Your task to perform on an android device: Open Google Maps and go to "Timeline" Image 0: 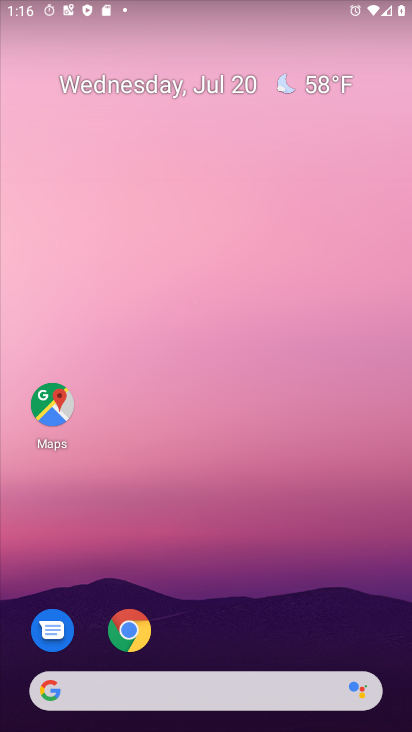
Step 0: click (44, 405)
Your task to perform on an android device: Open Google Maps and go to "Timeline" Image 1: 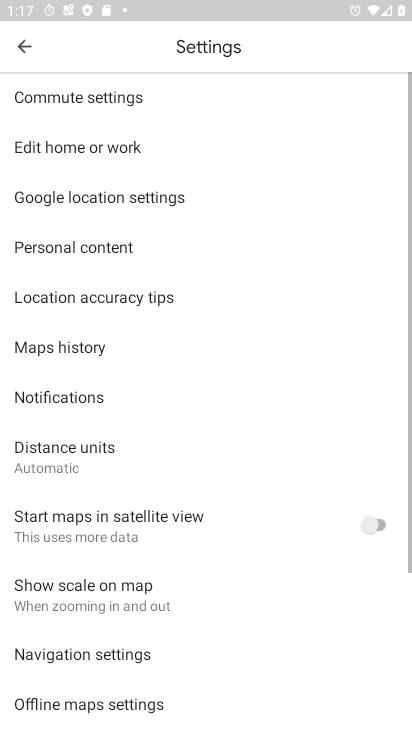
Step 1: click (25, 50)
Your task to perform on an android device: Open Google Maps and go to "Timeline" Image 2: 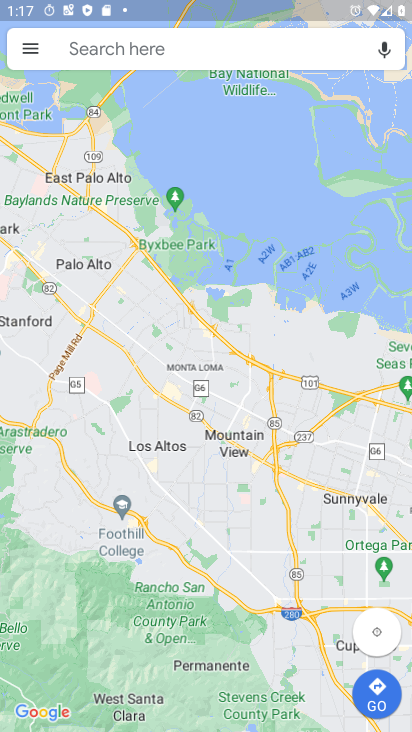
Step 2: click (25, 52)
Your task to perform on an android device: Open Google Maps and go to "Timeline" Image 3: 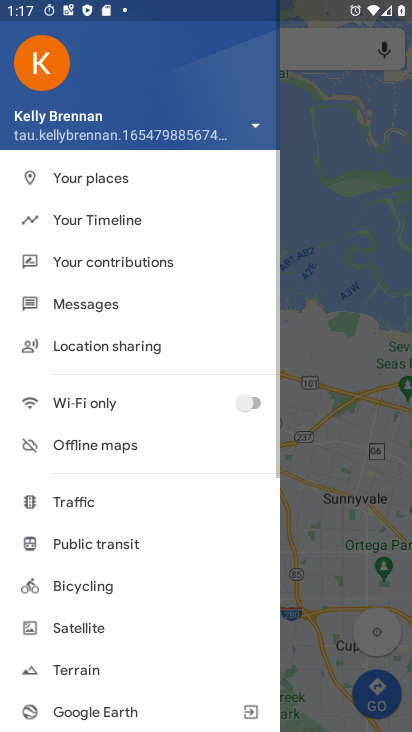
Step 3: click (110, 223)
Your task to perform on an android device: Open Google Maps and go to "Timeline" Image 4: 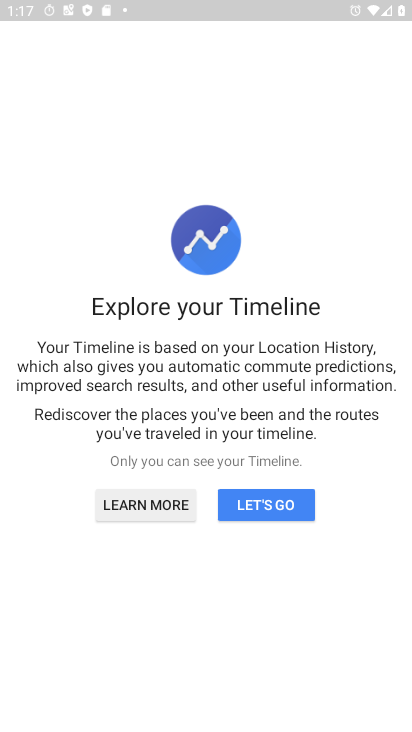
Step 4: click (236, 511)
Your task to perform on an android device: Open Google Maps and go to "Timeline" Image 5: 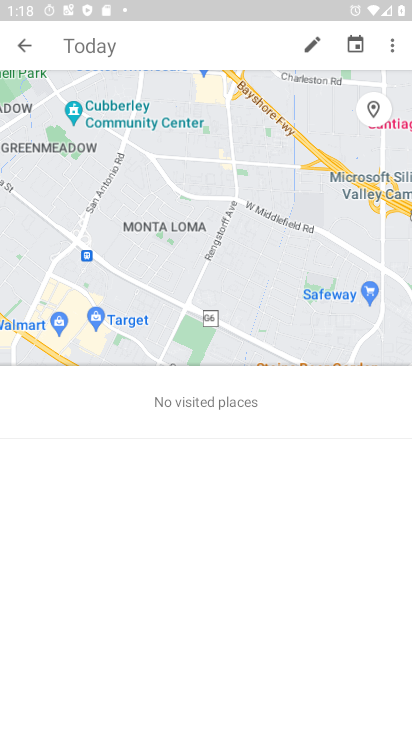
Step 5: task complete